Your task to perform on an android device: turn on the 12-hour format for clock Image 0: 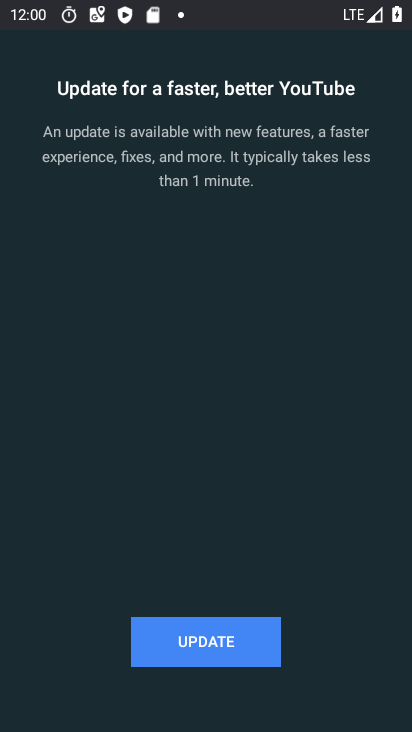
Step 0: press home button
Your task to perform on an android device: turn on the 12-hour format for clock Image 1: 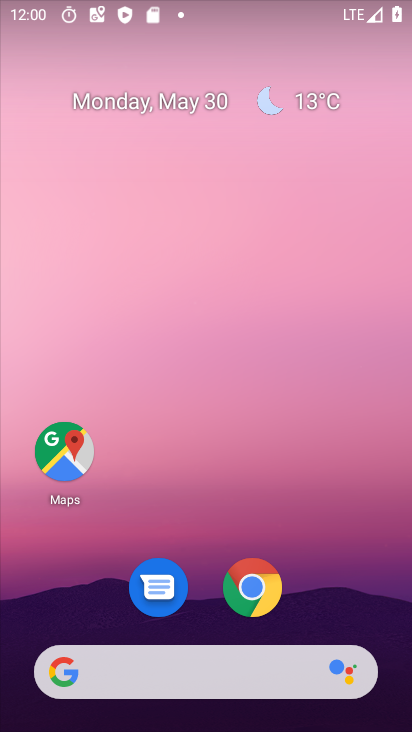
Step 1: drag from (347, 555) to (350, 139)
Your task to perform on an android device: turn on the 12-hour format for clock Image 2: 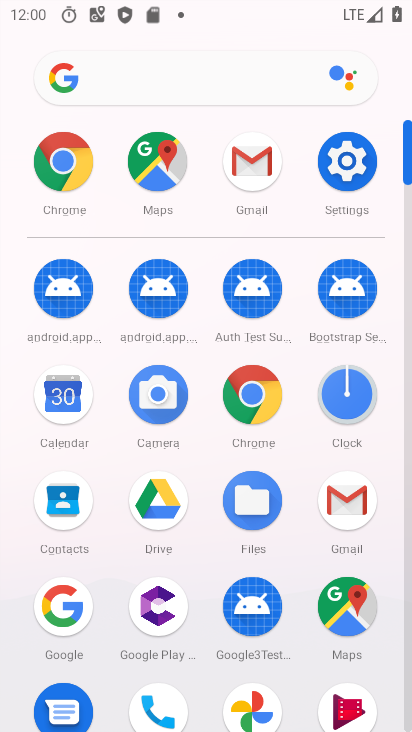
Step 2: click (346, 387)
Your task to perform on an android device: turn on the 12-hour format for clock Image 3: 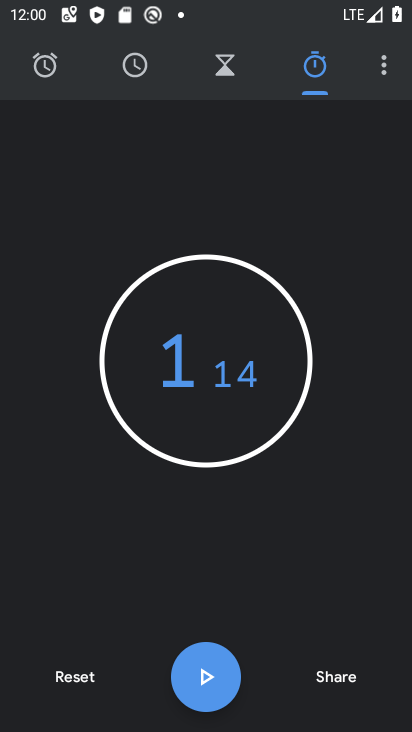
Step 3: drag from (387, 64) to (247, 117)
Your task to perform on an android device: turn on the 12-hour format for clock Image 4: 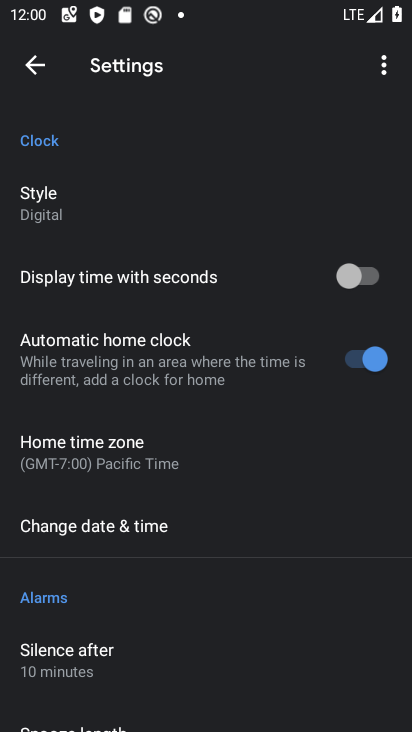
Step 4: drag from (163, 652) to (221, 128)
Your task to perform on an android device: turn on the 12-hour format for clock Image 5: 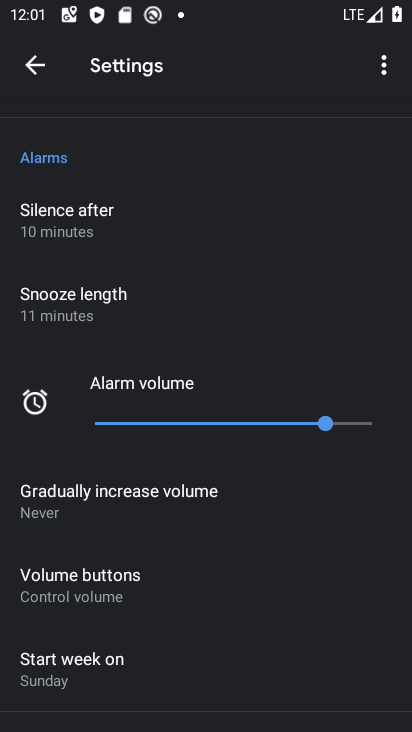
Step 5: drag from (112, 618) to (158, 125)
Your task to perform on an android device: turn on the 12-hour format for clock Image 6: 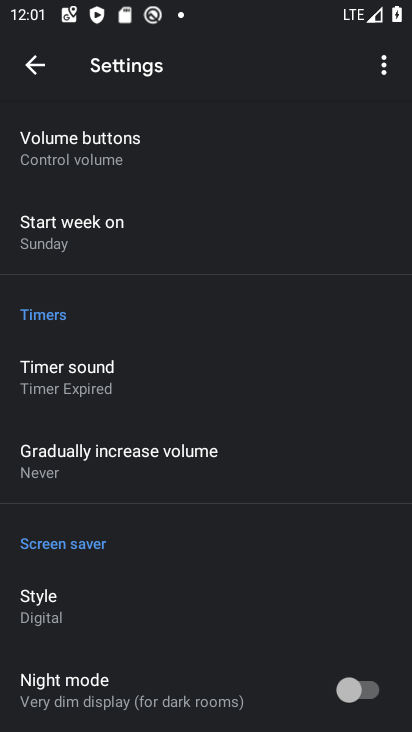
Step 6: drag from (110, 220) to (175, 730)
Your task to perform on an android device: turn on the 12-hour format for clock Image 7: 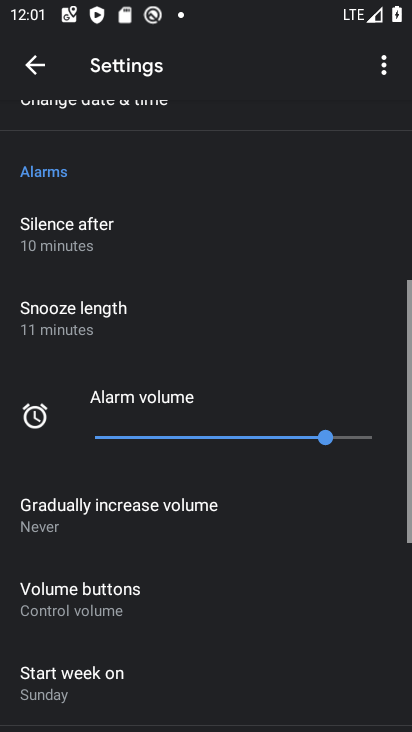
Step 7: drag from (134, 256) to (204, 706)
Your task to perform on an android device: turn on the 12-hour format for clock Image 8: 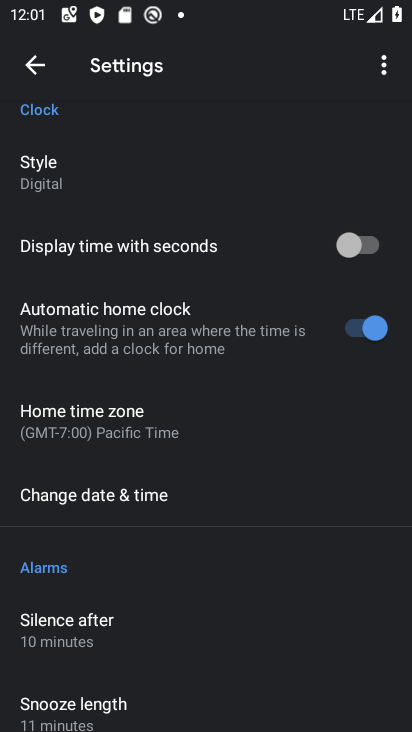
Step 8: click (156, 493)
Your task to perform on an android device: turn on the 12-hour format for clock Image 9: 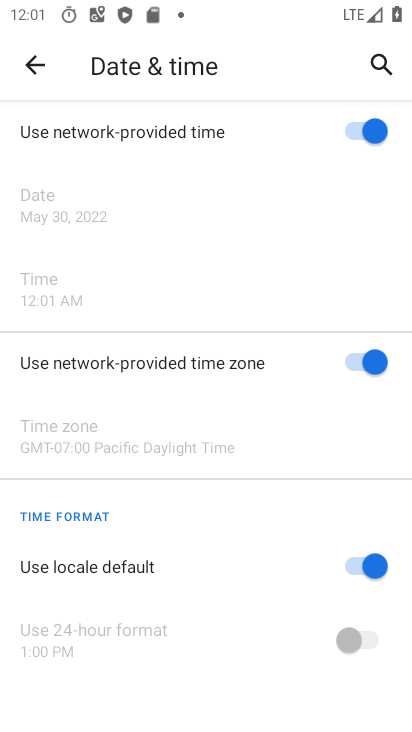
Step 9: task complete